Your task to perform on an android device: install app "Pluto TV - Live TV and Movies" Image 0: 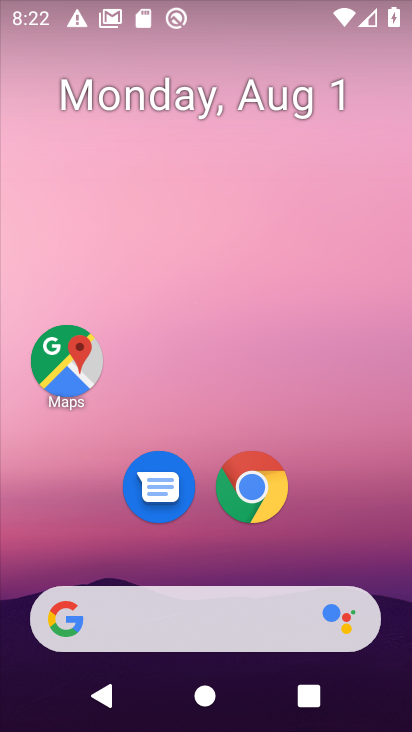
Step 0: press home button
Your task to perform on an android device: install app "Pluto TV - Live TV and Movies" Image 1: 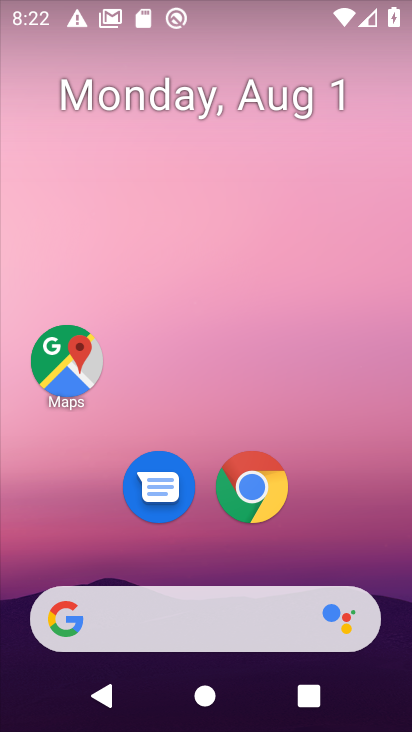
Step 1: drag from (394, 561) to (385, 89)
Your task to perform on an android device: install app "Pluto TV - Live TV and Movies" Image 2: 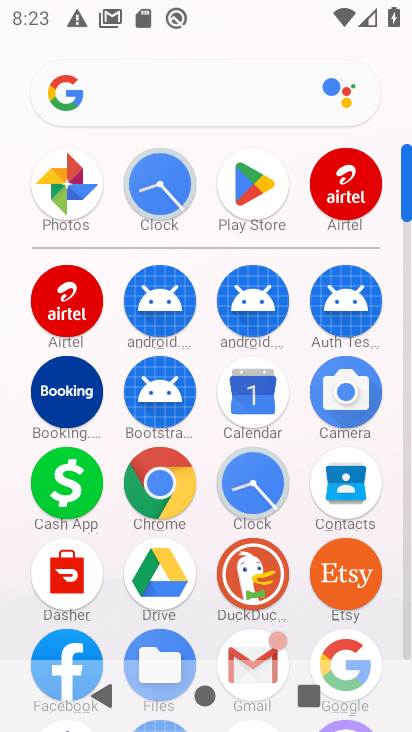
Step 2: click (258, 184)
Your task to perform on an android device: install app "Pluto TV - Live TV and Movies" Image 3: 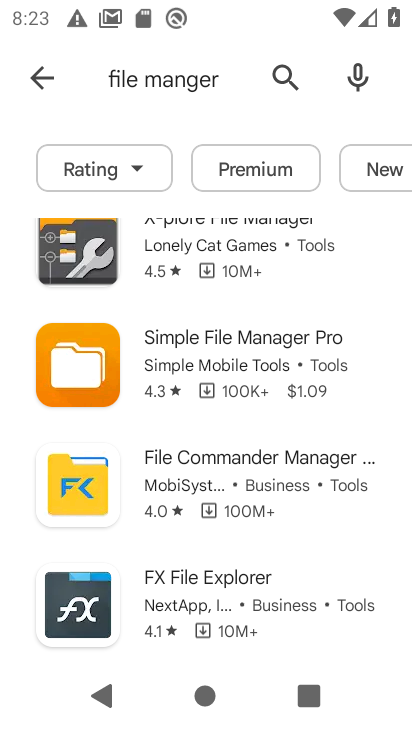
Step 3: click (283, 72)
Your task to perform on an android device: install app "Pluto TV - Live TV and Movies" Image 4: 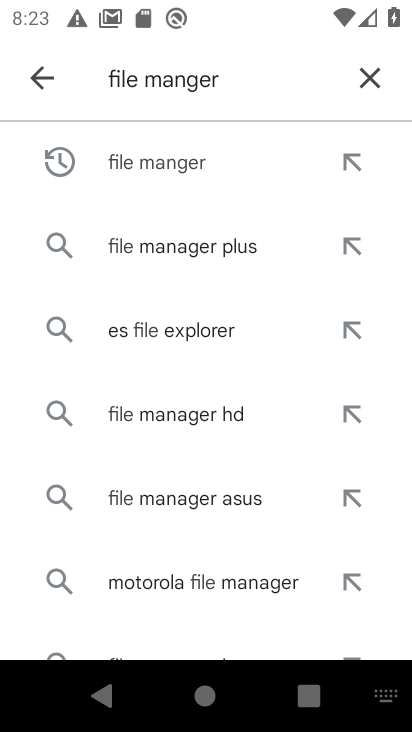
Step 4: click (360, 74)
Your task to perform on an android device: install app "Pluto TV - Live TV and Movies" Image 5: 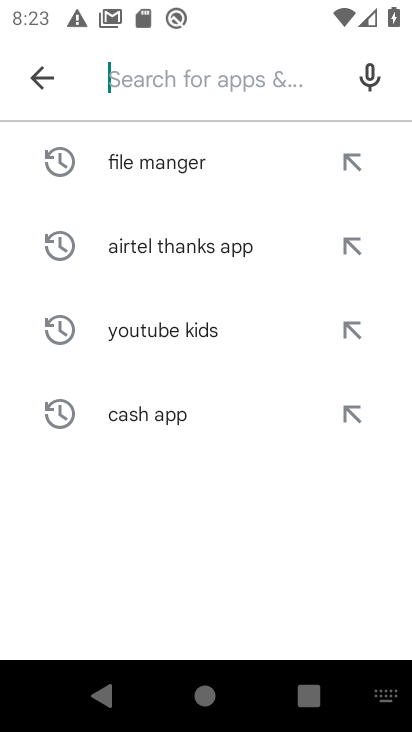
Step 5: type "Pluto TV - Live TV and Movies"
Your task to perform on an android device: install app "Pluto TV - Live TV and Movies" Image 6: 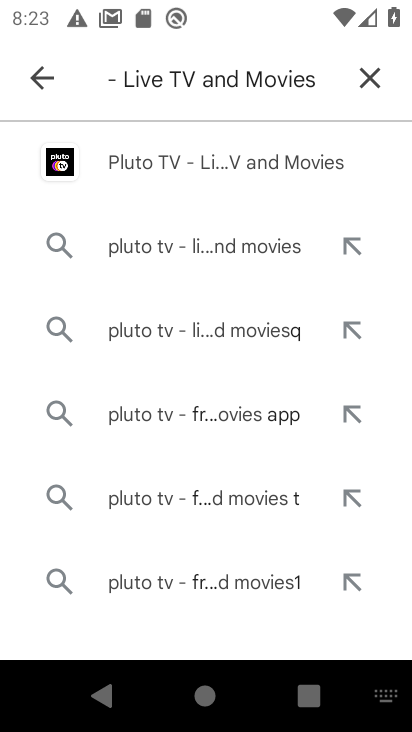
Step 6: click (231, 166)
Your task to perform on an android device: install app "Pluto TV - Live TV and Movies" Image 7: 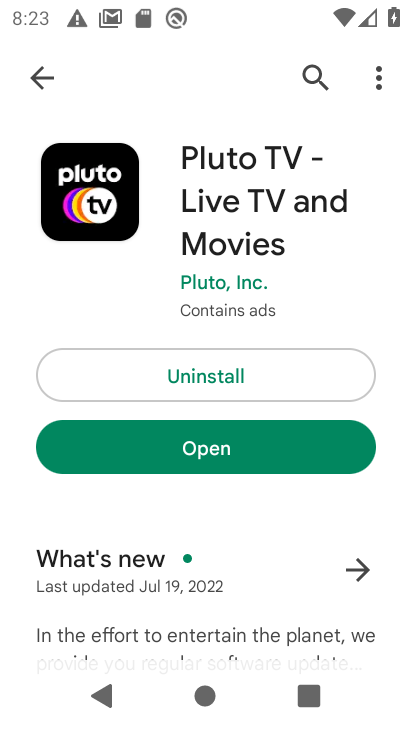
Step 7: task complete